Your task to perform on an android device: turn off picture-in-picture Image 0: 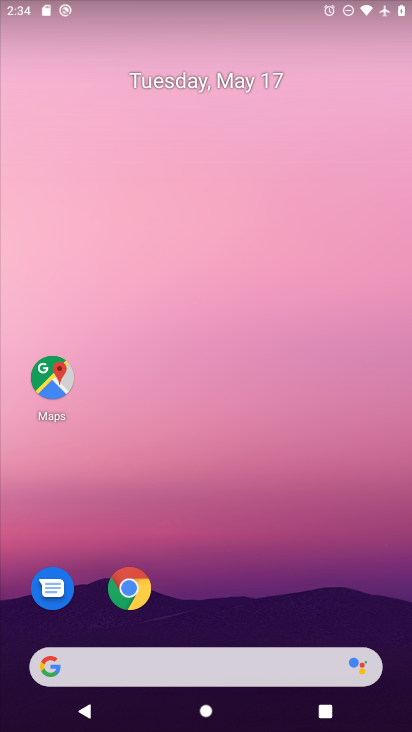
Step 0: drag from (182, 503) to (199, 208)
Your task to perform on an android device: turn off picture-in-picture Image 1: 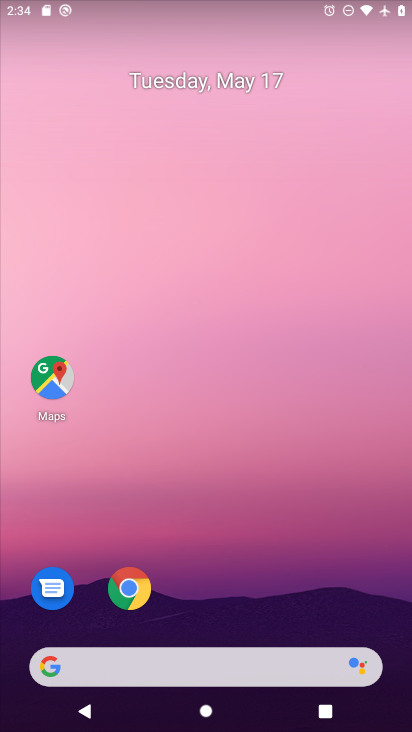
Step 1: drag from (206, 596) to (219, 58)
Your task to perform on an android device: turn off picture-in-picture Image 2: 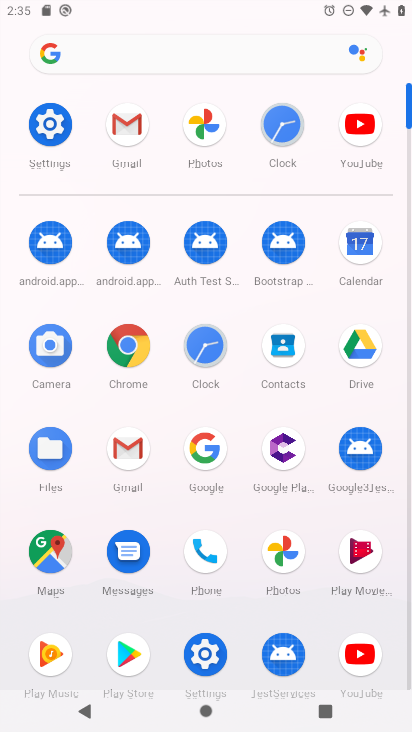
Step 2: click (203, 648)
Your task to perform on an android device: turn off picture-in-picture Image 3: 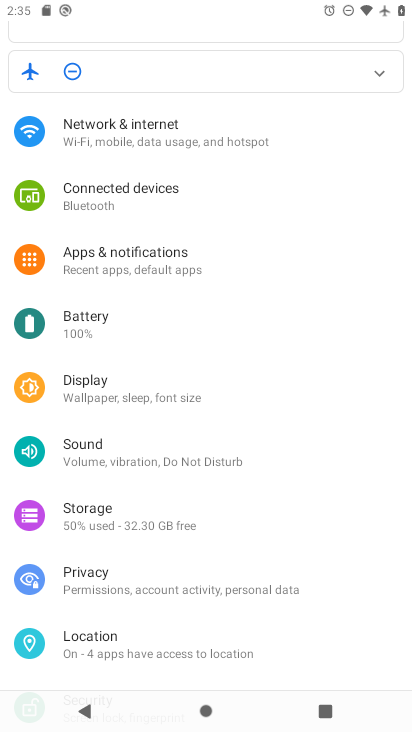
Step 3: click (118, 273)
Your task to perform on an android device: turn off picture-in-picture Image 4: 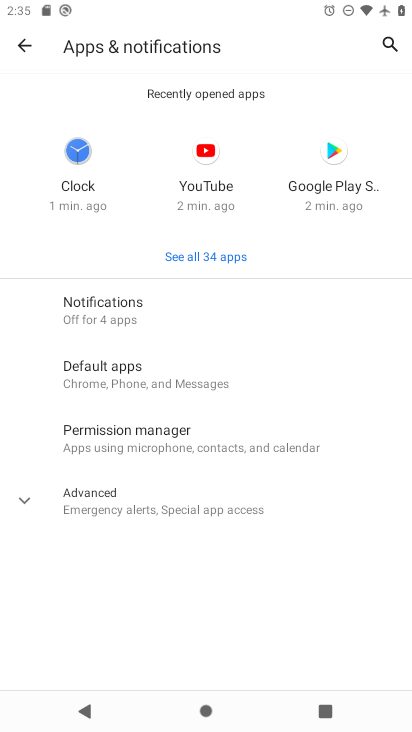
Step 4: click (95, 498)
Your task to perform on an android device: turn off picture-in-picture Image 5: 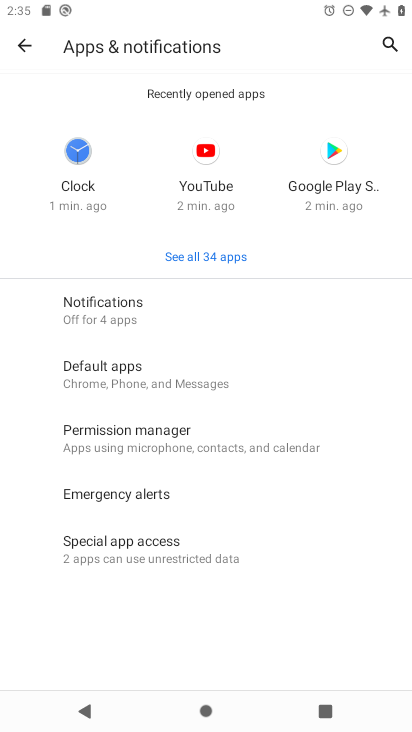
Step 5: click (150, 551)
Your task to perform on an android device: turn off picture-in-picture Image 6: 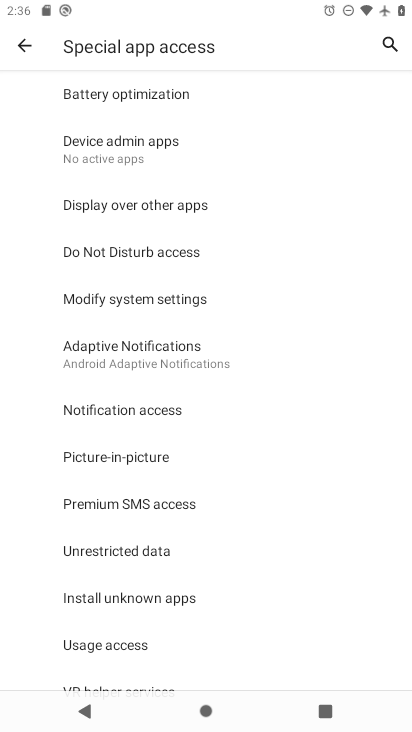
Step 6: click (126, 454)
Your task to perform on an android device: turn off picture-in-picture Image 7: 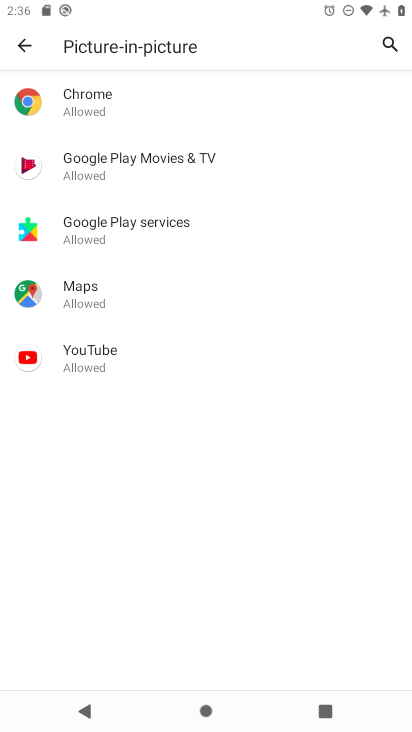
Step 7: click (168, 281)
Your task to perform on an android device: turn off picture-in-picture Image 8: 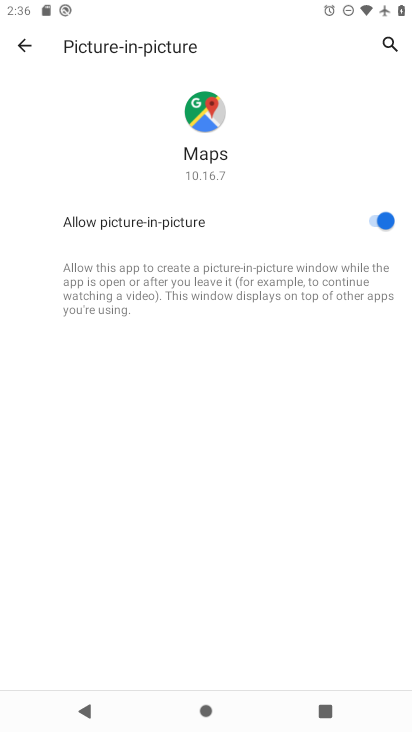
Step 8: click (383, 210)
Your task to perform on an android device: turn off picture-in-picture Image 9: 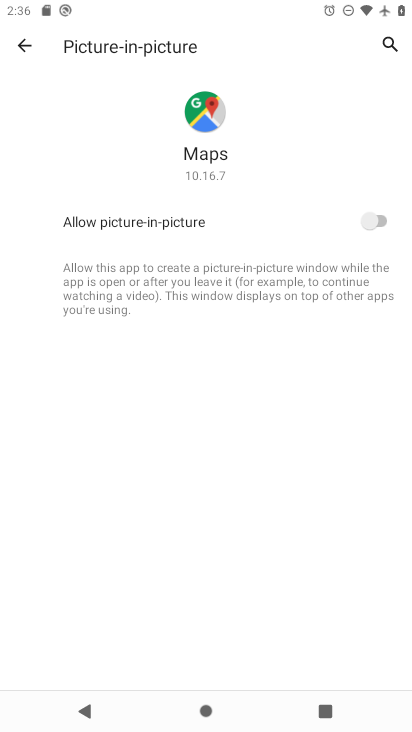
Step 9: task complete